Your task to perform on an android device: Go to Android settings Image 0: 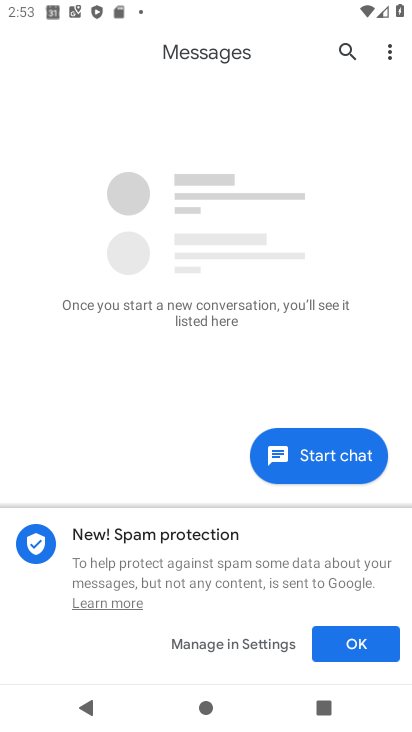
Step 0: press home button
Your task to perform on an android device: Go to Android settings Image 1: 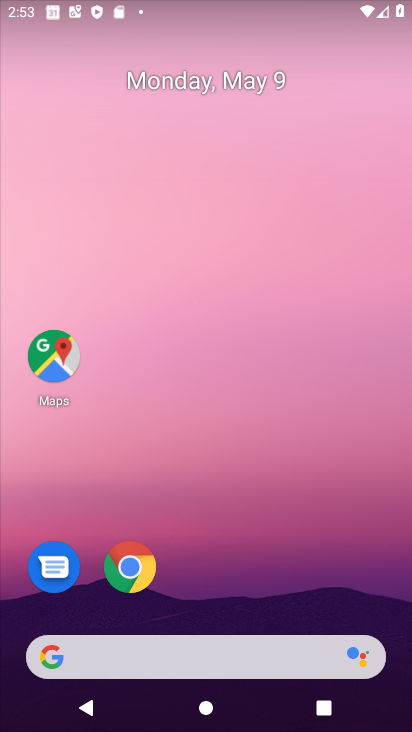
Step 1: drag from (330, 390) to (404, 47)
Your task to perform on an android device: Go to Android settings Image 2: 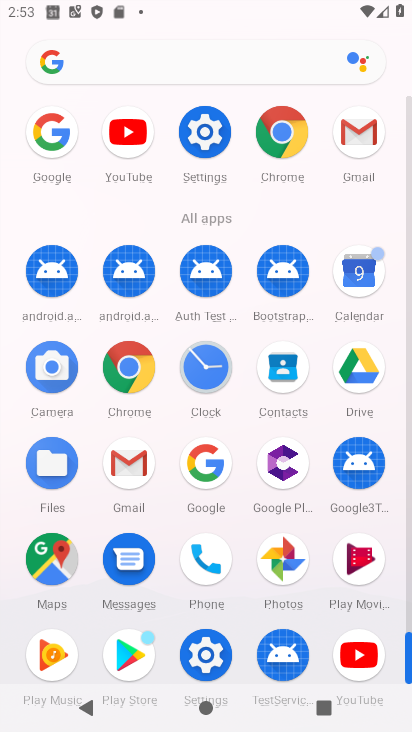
Step 2: click (216, 119)
Your task to perform on an android device: Go to Android settings Image 3: 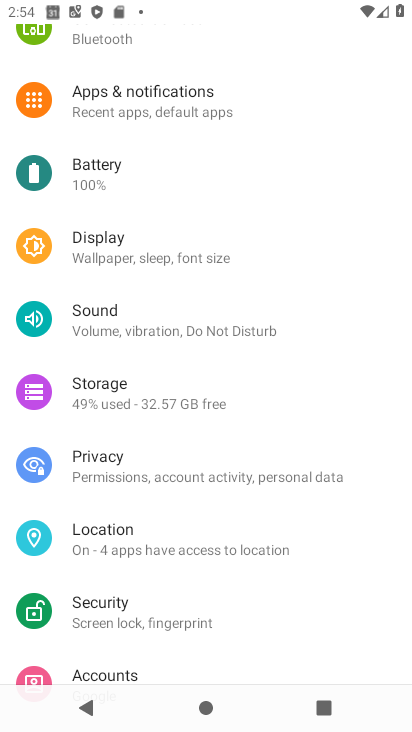
Step 3: drag from (176, 602) to (219, 235)
Your task to perform on an android device: Go to Android settings Image 4: 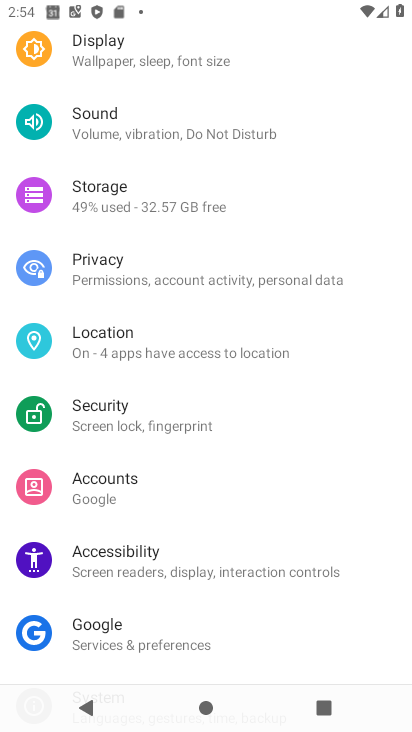
Step 4: drag from (198, 550) to (206, 162)
Your task to perform on an android device: Go to Android settings Image 5: 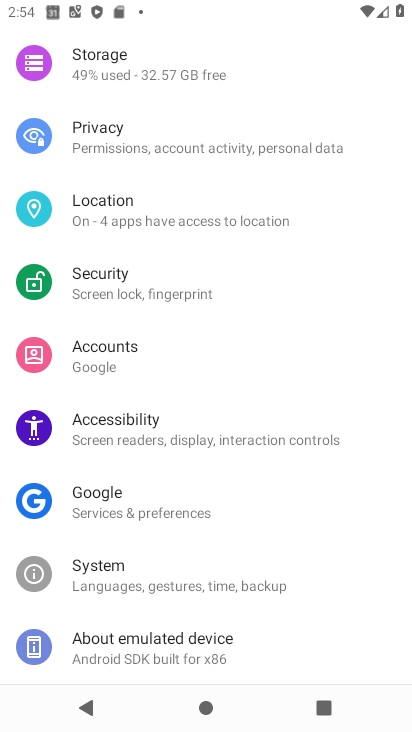
Step 5: click (138, 645)
Your task to perform on an android device: Go to Android settings Image 6: 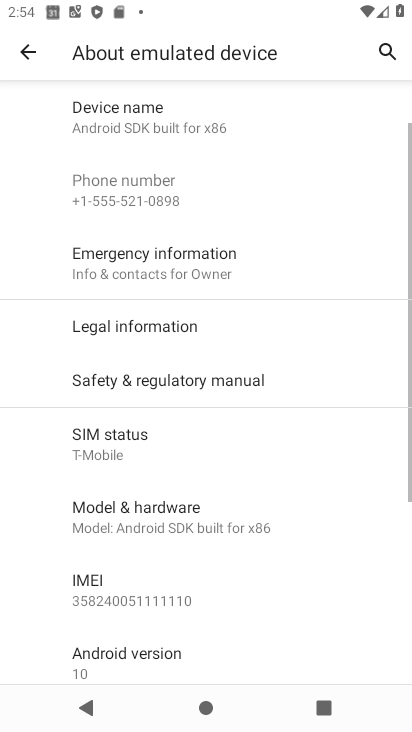
Step 6: drag from (246, 648) to (291, 380)
Your task to perform on an android device: Go to Android settings Image 7: 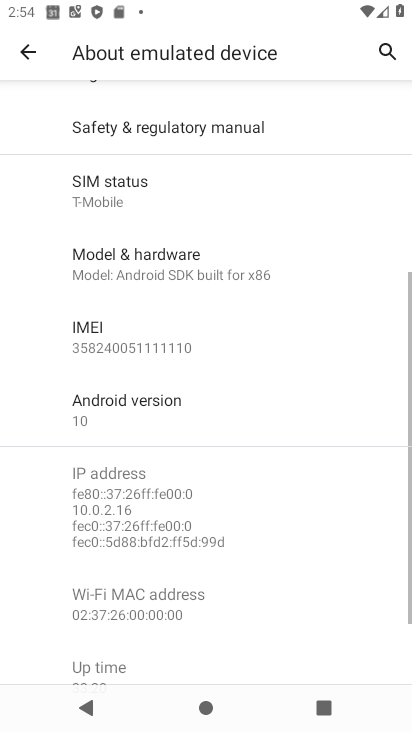
Step 7: click (167, 404)
Your task to perform on an android device: Go to Android settings Image 8: 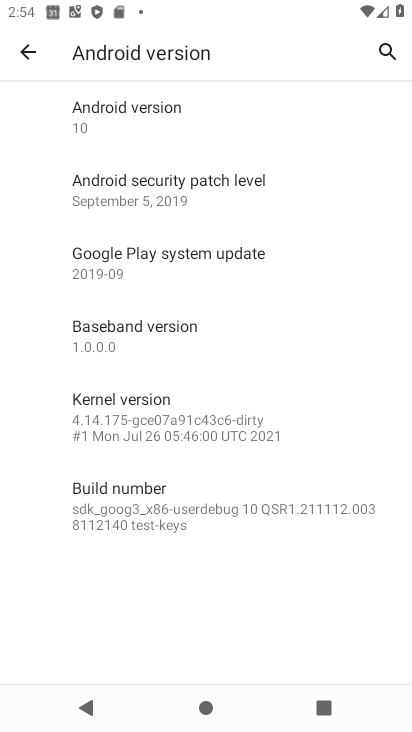
Step 8: task complete